Your task to perform on an android device: Go to display settings Image 0: 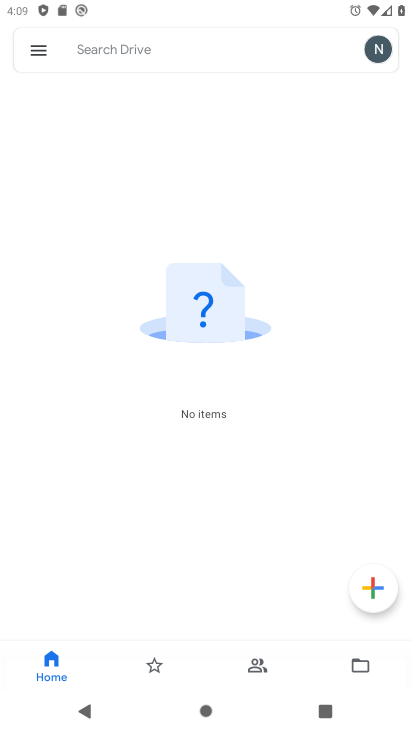
Step 0: press home button
Your task to perform on an android device: Go to display settings Image 1: 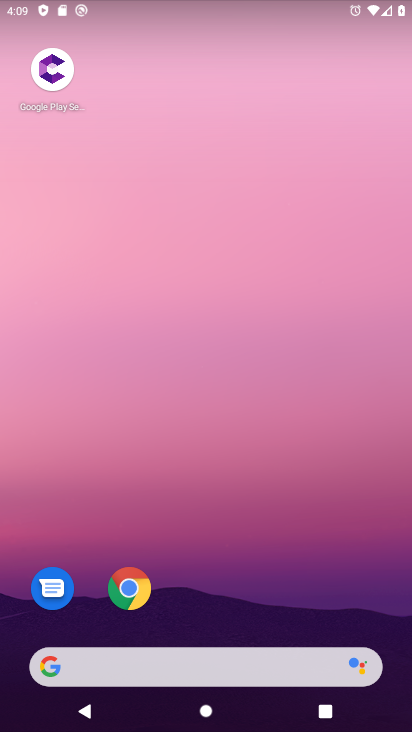
Step 1: drag from (200, 669) to (190, 272)
Your task to perform on an android device: Go to display settings Image 2: 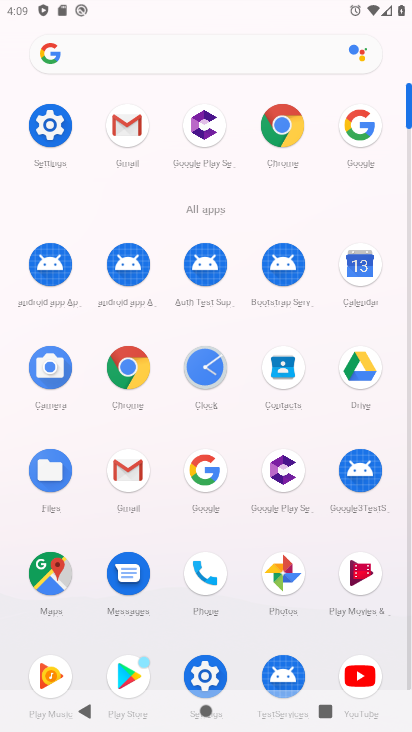
Step 2: click (50, 125)
Your task to perform on an android device: Go to display settings Image 3: 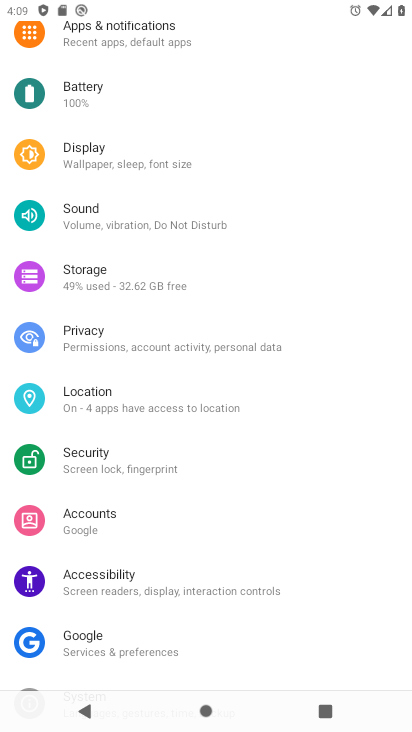
Step 3: click (78, 151)
Your task to perform on an android device: Go to display settings Image 4: 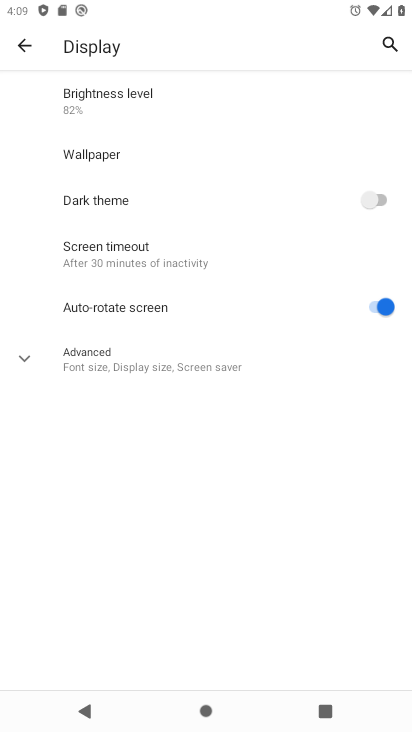
Step 4: task complete